Your task to perform on an android device: change the upload size in google photos Image 0: 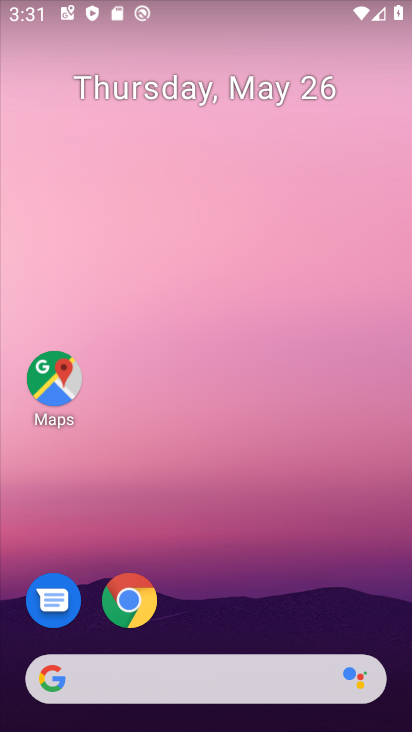
Step 0: drag from (255, 508) to (235, 24)
Your task to perform on an android device: change the upload size in google photos Image 1: 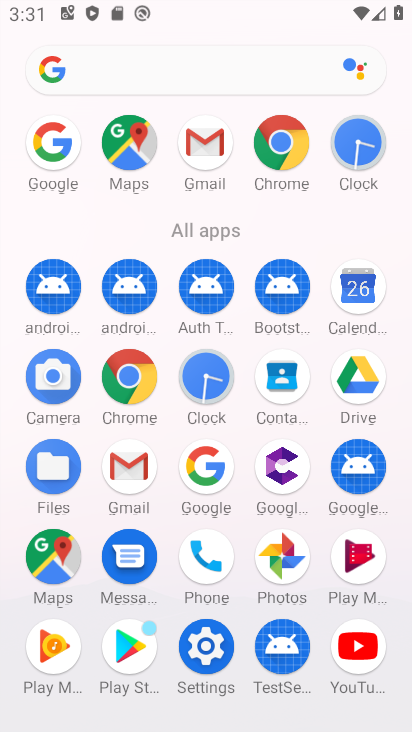
Step 1: drag from (2, 464) to (5, 269)
Your task to perform on an android device: change the upload size in google photos Image 2: 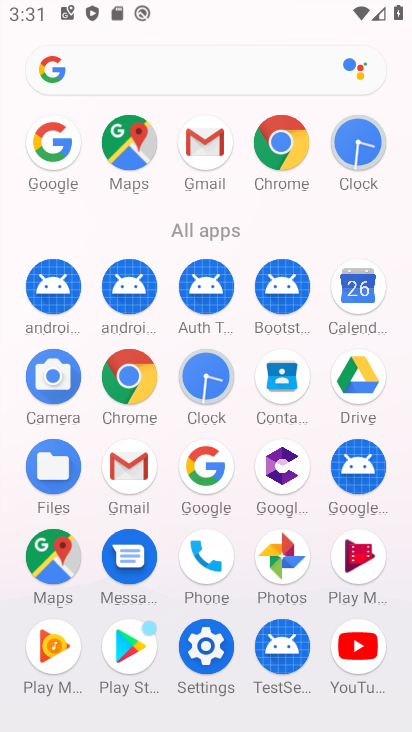
Step 2: drag from (16, 600) to (16, 293)
Your task to perform on an android device: change the upload size in google photos Image 3: 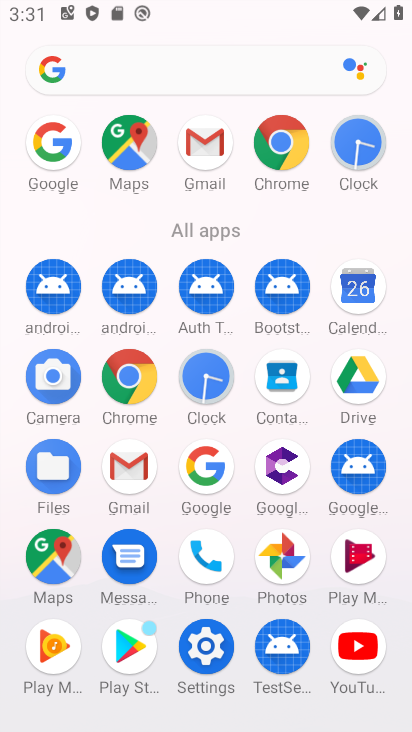
Step 3: click (274, 551)
Your task to perform on an android device: change the upload size in google photos Image 4: 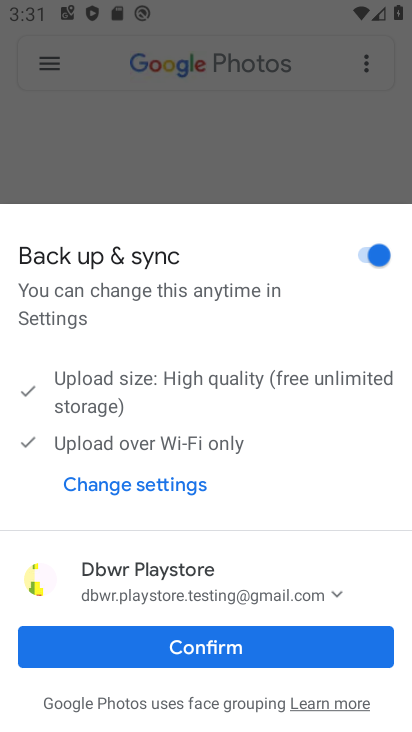
Step 4: click (203, 643)
Your task to perform on an android device: change the upload size in google photos Image 5: 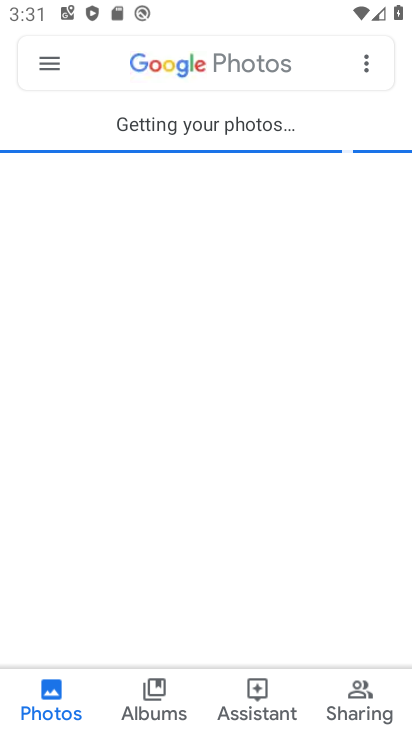
Step 5: click (39, 55)
Your task to perform on an android device: change the upload size in google photos Image 6: 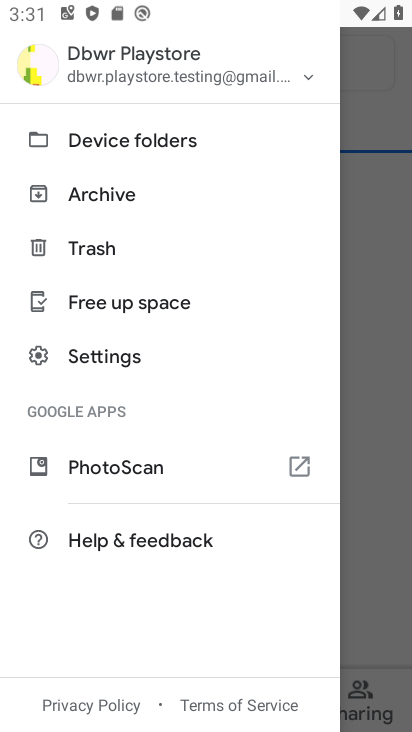
Step 6: click (104, 359)
Your task to perform on an android device: change the upload size in google photos Image 7: 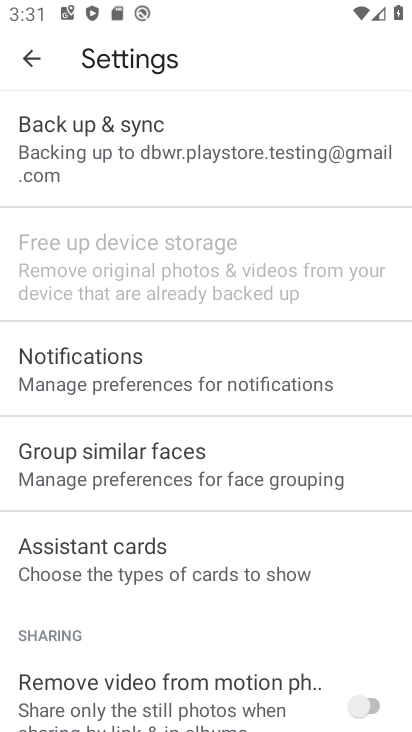
Step 7: drag from (244, 587) to (238, 216)
Your task to perform on an android device: change the upload size in google photos Image 8: 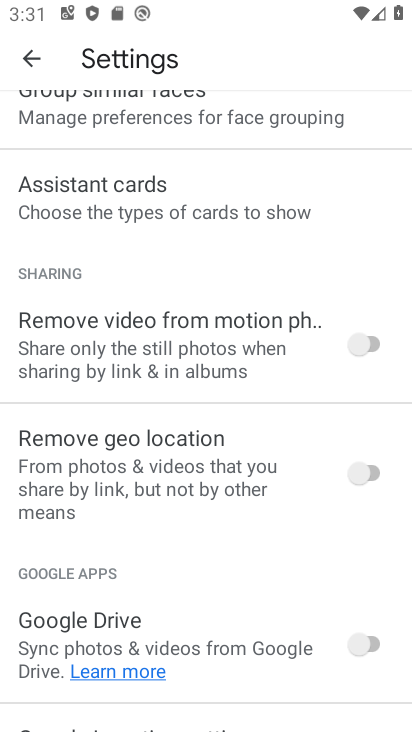
Step 8: drag from (259, 540) to (223, 155)
Your task to perform on an android device: change the upload size in google photos Image 9: 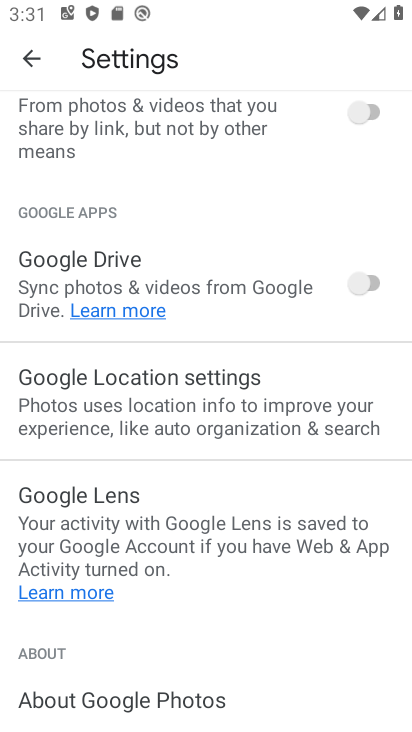
Step 9: drag from (217, 571) to (227, 141)
Your task to perform on an android device: change the upload size in google photos Image 10: 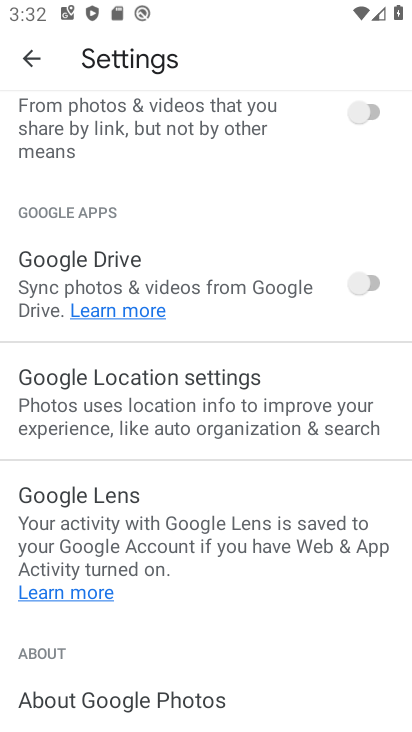
Step 10: drag from (211, 185) to (224, 640)
Your task to perform on an android device: change the upload size in google photos Image 11: 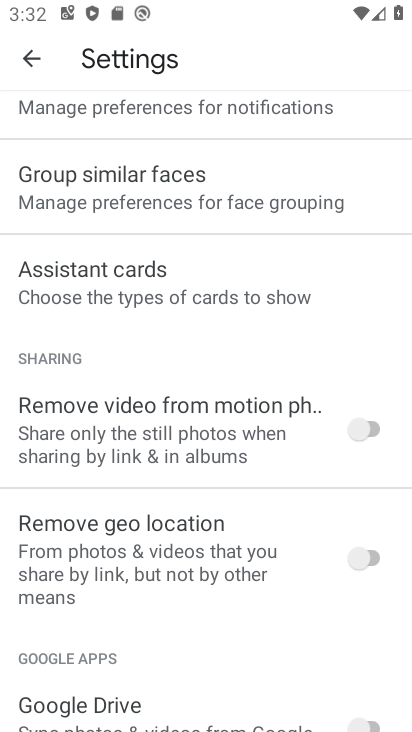
Step 11: drag from (225, 132) to (249, 461)
Your task to perform on an android device: change the upload size in google photos Image 12: 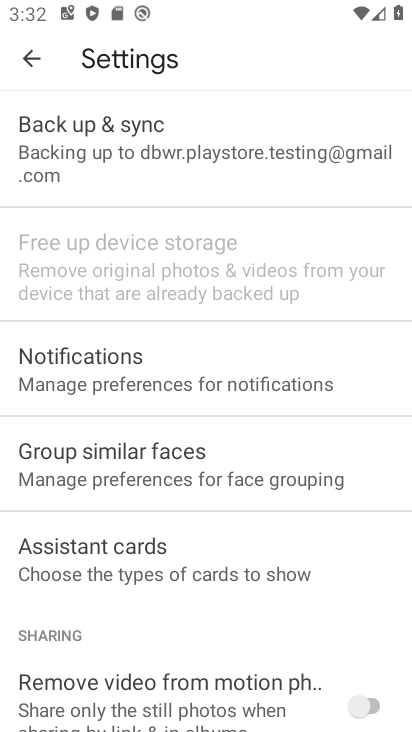
Step 12: drag from (232, 183) to (222, 673)
Your task to perform on an android device: change the upload size in google photos Image 13: 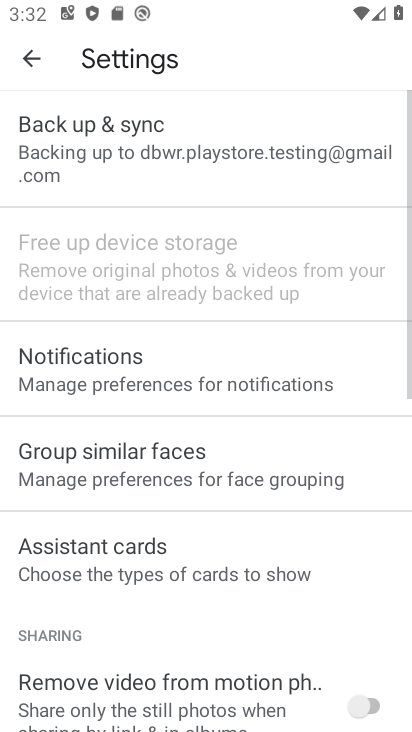
Step 13: drag from (217, 235) to (217, 609)
Your task to perform on an android device: change the upload size in google photos Image 14: 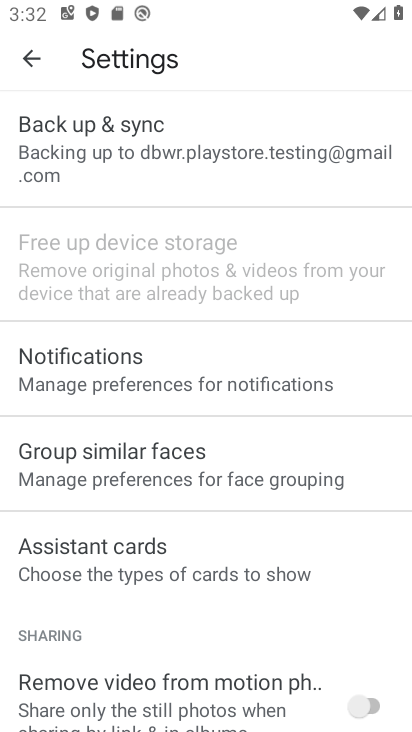
Step 14: click (217, 160)
Your task to perform on an android device: change the upload size in google photos Image 15: 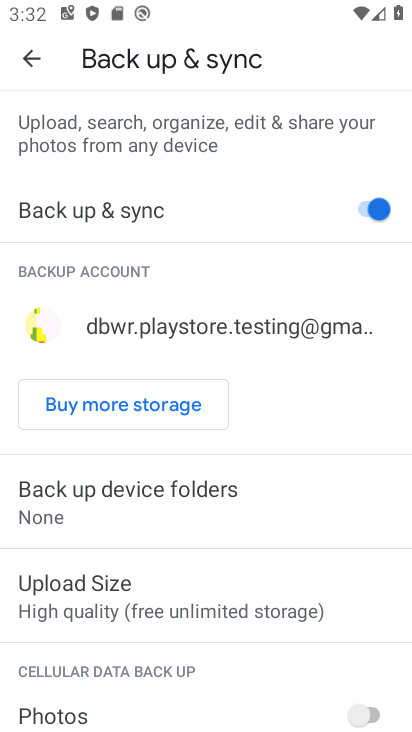
Step 15: click (236, 605)
Your task to perform on an android device: change the upload size in google photos Image 16: 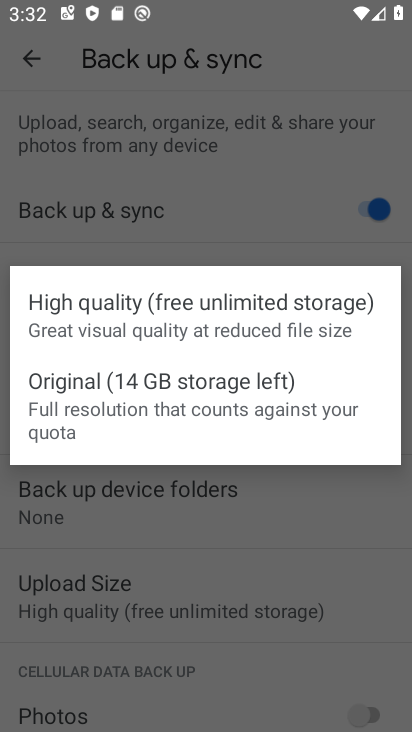
Step 16: click (177, 386)
Your task to perform on an android device: change the upload size in google photos Image 17: 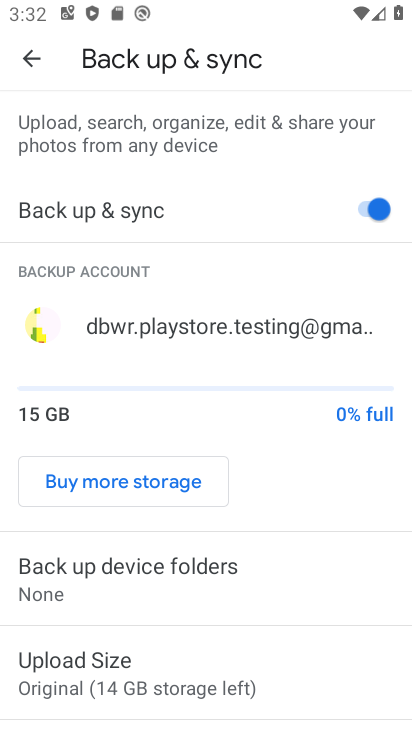
Step 17: task complete